Your task to perform on an android device: Search for "bose soundlink mini" on ebay.com, select the first entry, and add it to the cart. Image 0: 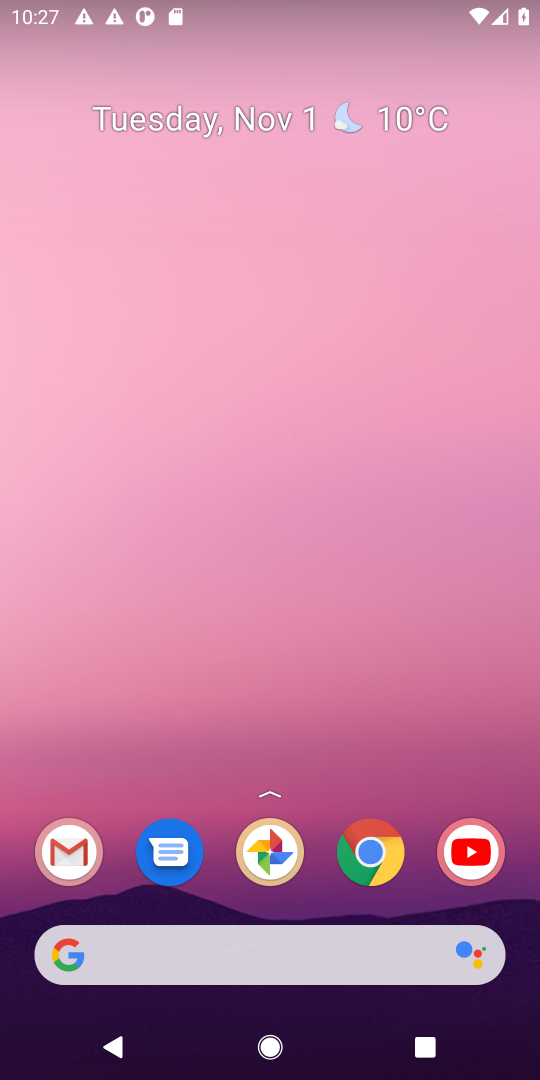
Step 0: press home button
Your task to perform on an android device: Search for "bose soundlink mini" on ebay.com, select the first entry, and add it to the cart. Image 1: 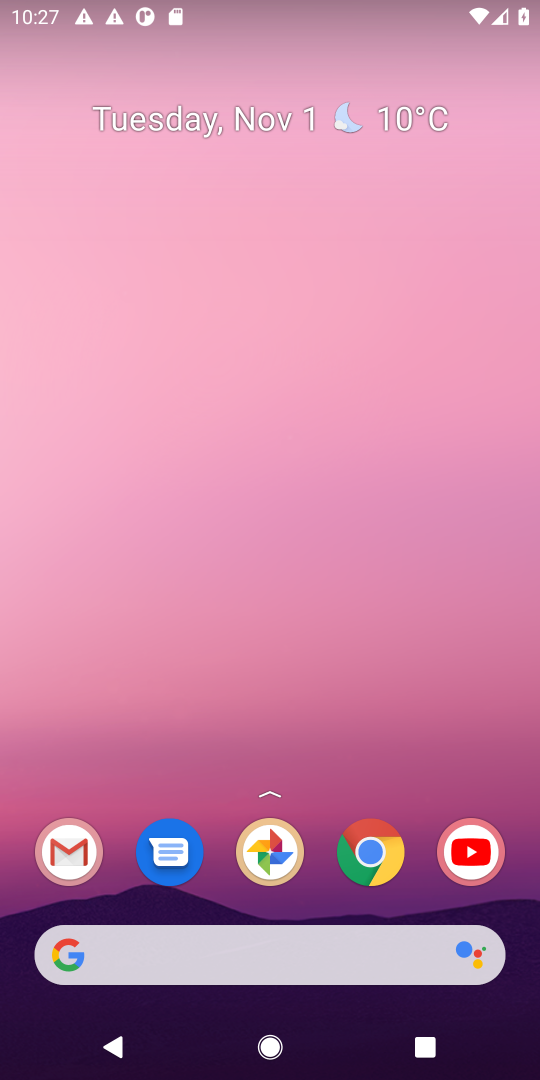
Step 1: click (66, 957)
Your task to perform on an android device: Search for "bose soundlink mini" on ebay.com, select the first entry, and add it to the cart. Image 2: 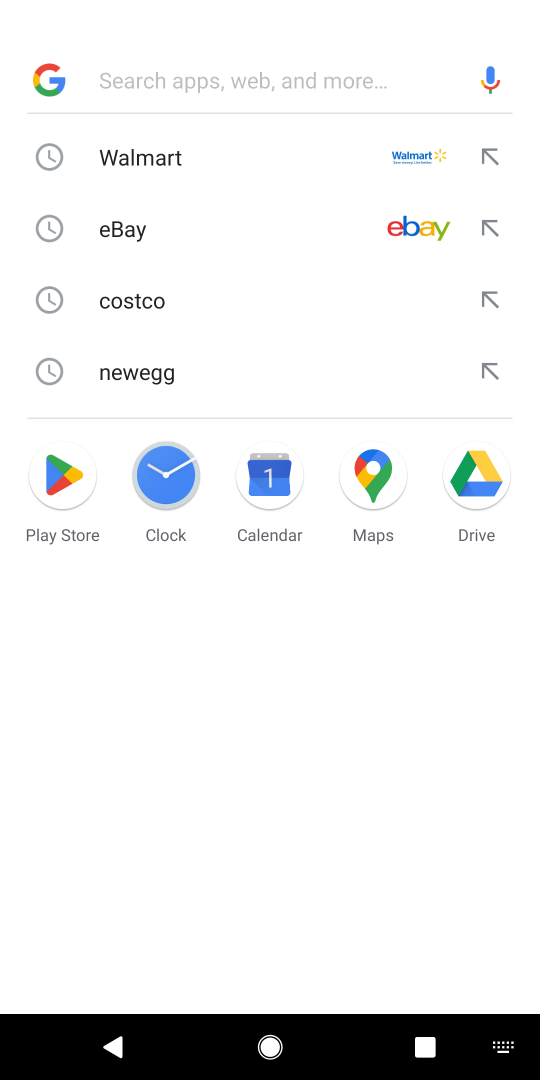
Step 2: click (442, 234)
Your task to perform on an android device: Search for "bose soundlink mini" on ebay.com, select the first entry, and add it to the cart. Image 3: 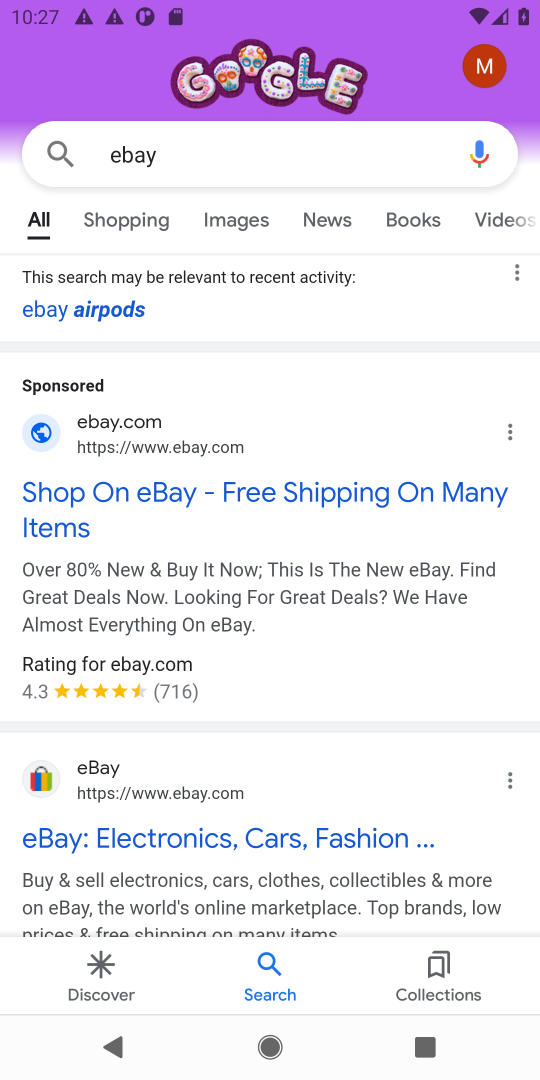
Step 3: click (95, 836)
Your task to perform on an android device: Search for "bose soundlink mini" on ebay.com, select the first entry, and add it to the cart. Image 4: 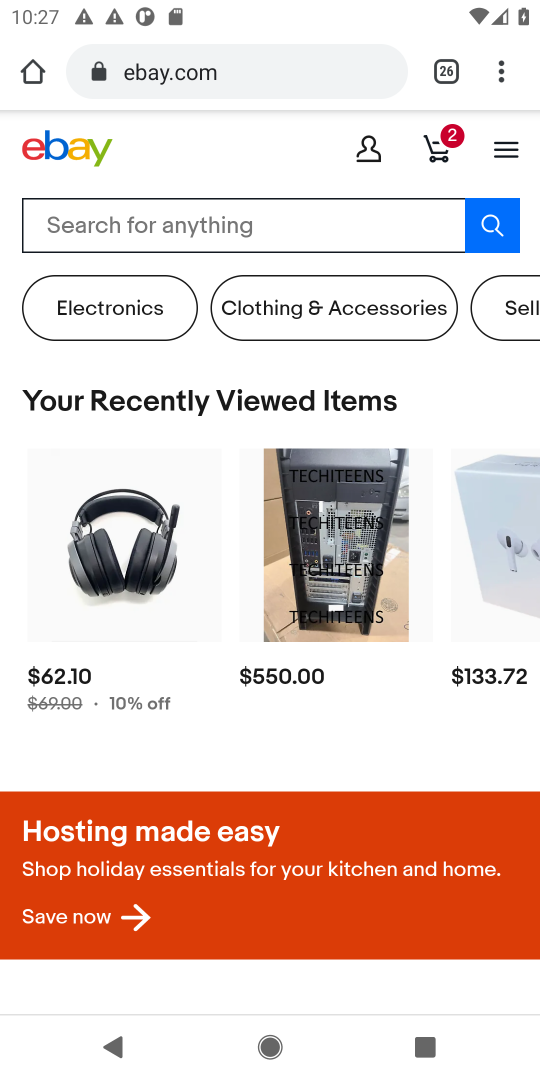
Step 4: click (156, 226)
Your task to perform on an android device: Search for "bose soundlink mini" on ebay.com, select the first entry, and add it to the cart. Image 5: 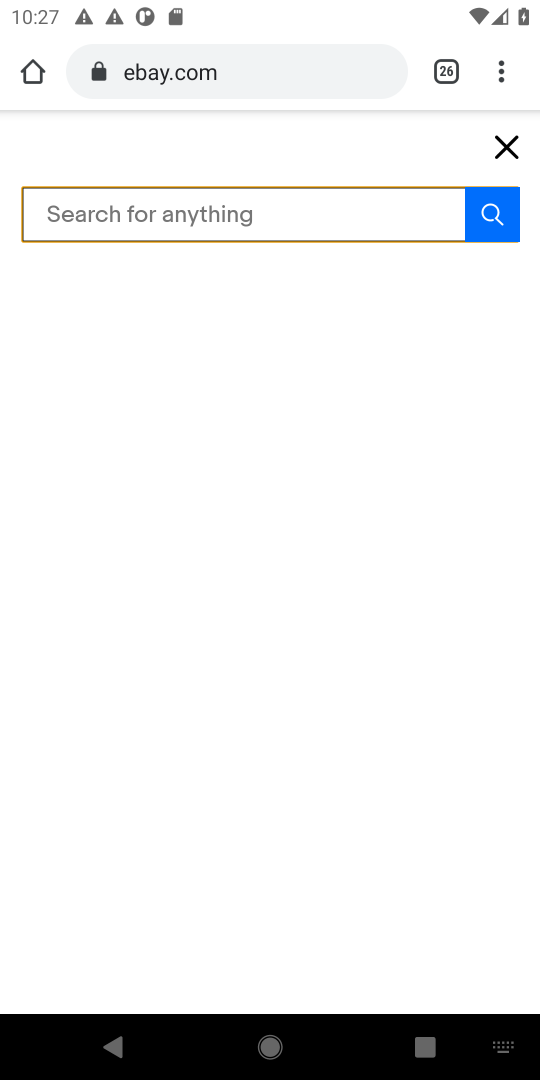
Step 5: type "bose soundlink mini"
Your task to perform on an android device: Search for "bose soundlink mini" on ebay.com, select the first entry, and add it to the cart. Image 6: 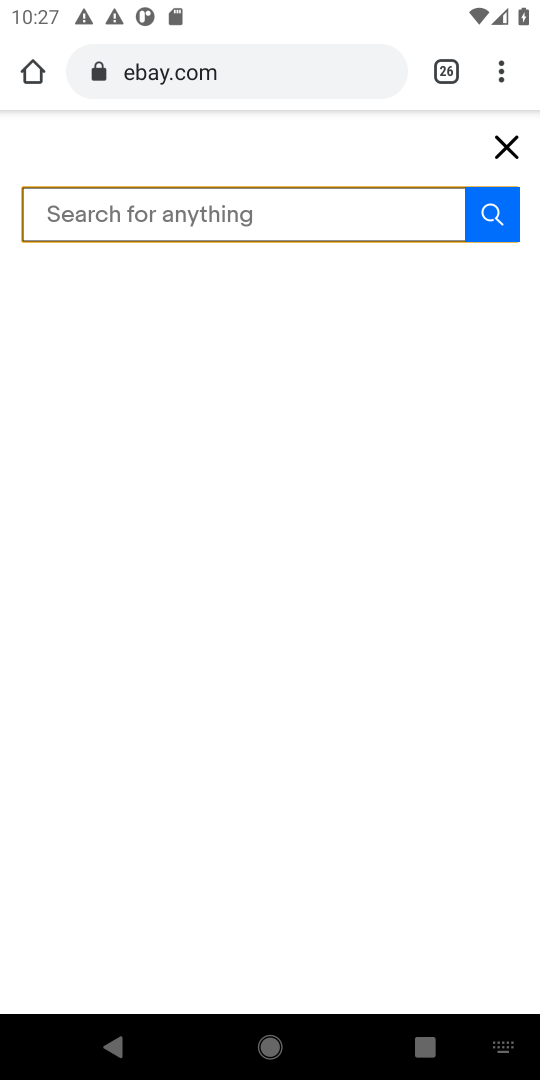
Step 6: click (99, 212)
Your task to perform on an android device: Search for "bose soundlink mini" on ebay.com, select the first entry, and add it to the cart. Image 7: 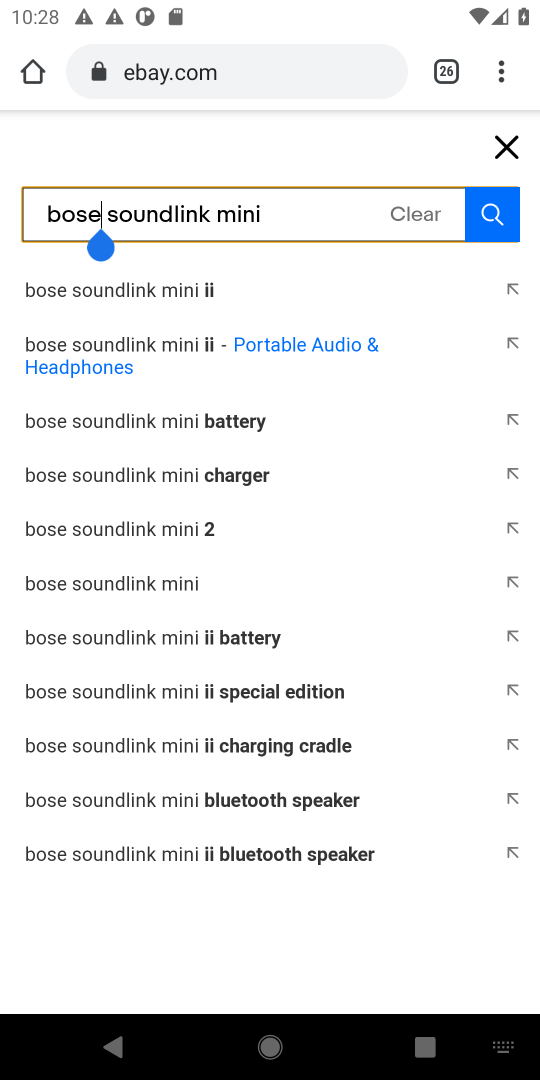
Step 7: press enter
Your task to perform on an android device: Search for "bose soundlink mini" on ebay.com, select the first entry, and add it to the cart. Image 8: 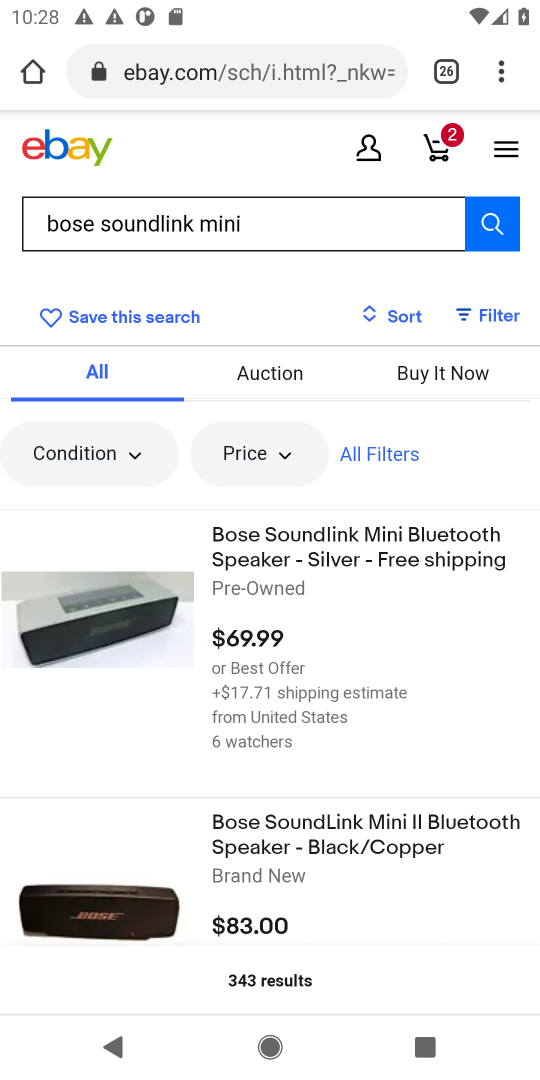
Step 8: click (272, 530)
Your task to perform on an android device: Search for "bose soundlink mini" on ebay.com, select the first entry, and add it to the cart. Image 9: 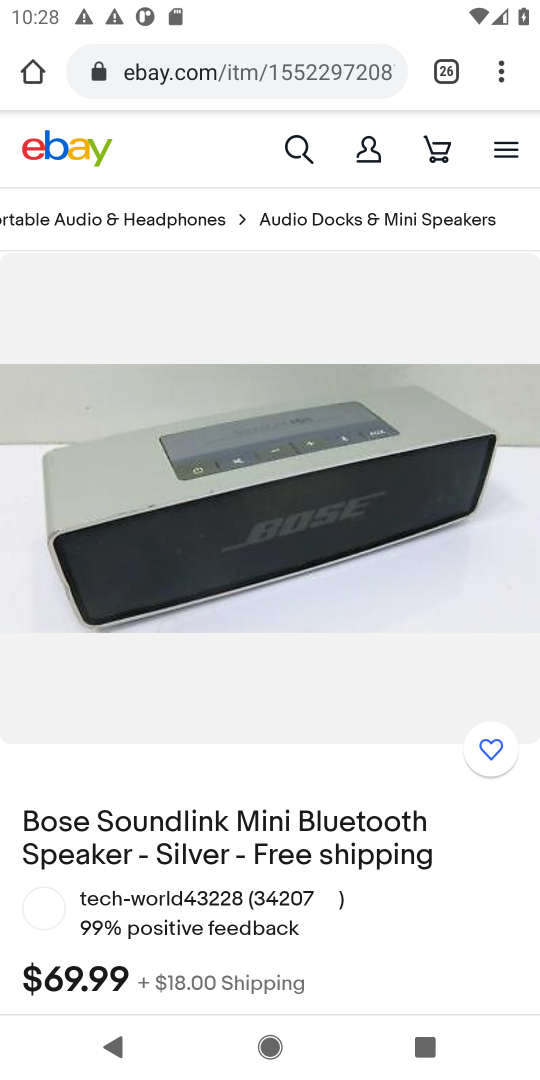
Step 9: drag from (410, 911) to (303, 386)
Your task to perform on an android device: Search for "bose soundlink mini" on ebay.com, select the first entry, and add it to the cart. Image 10: 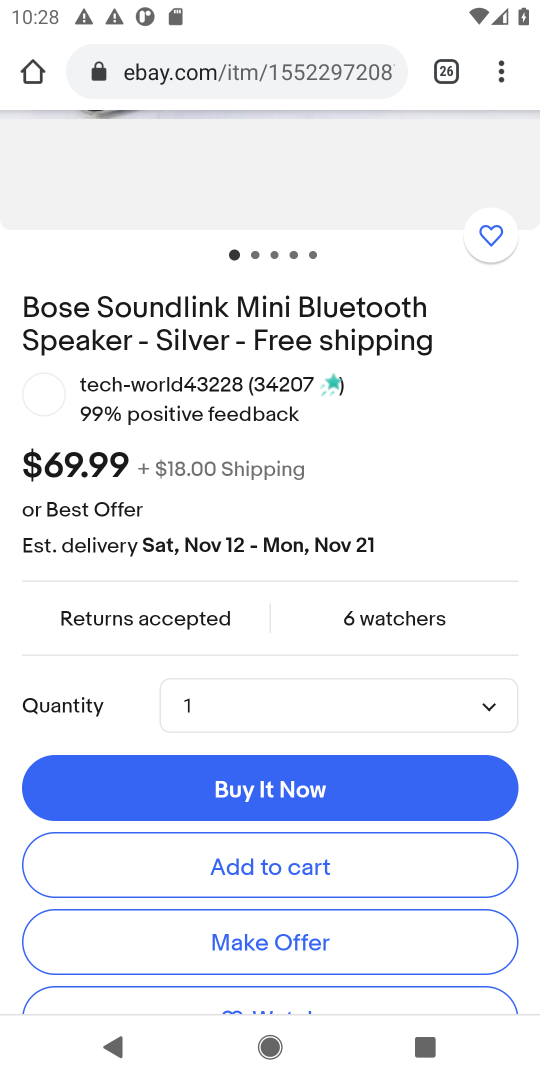
Step 10: click (252, 864)
Your task to perform on an android device: Search for "bose soundlink mini" on ebay.com, select the first entry, and add it to the cart. Image 11: 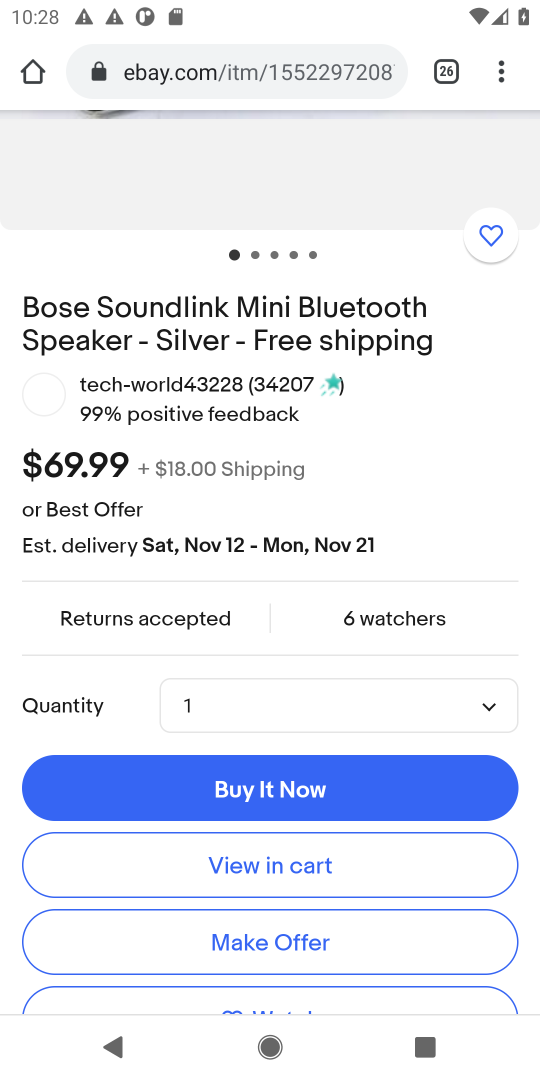
Step 11: task complete